Your task to perform on an android device: Open wifi settings Image 0: 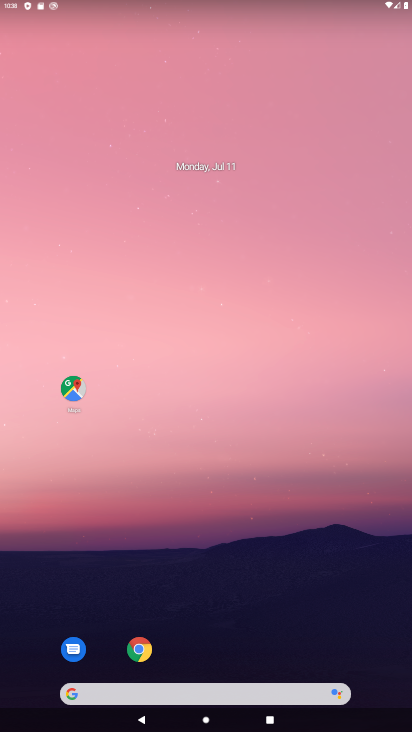
Step 0: drag from (310, 588) to (296, 87)
Your task to perform on an android device: Open wifi settings Image 1: 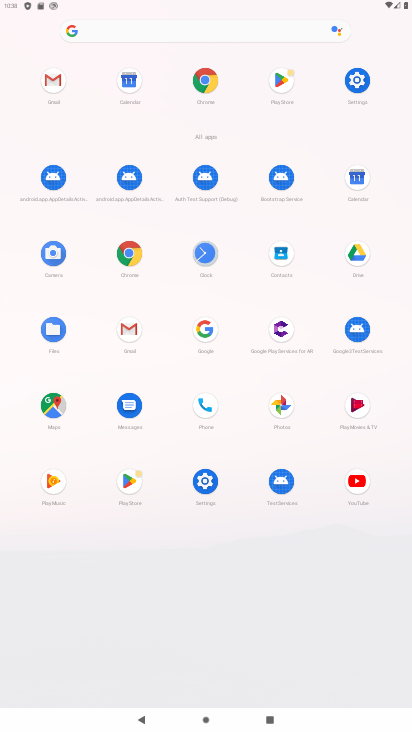
Step 1: click (359, 87)
Your task to perform on an android device: Open wifi settings Image 2: 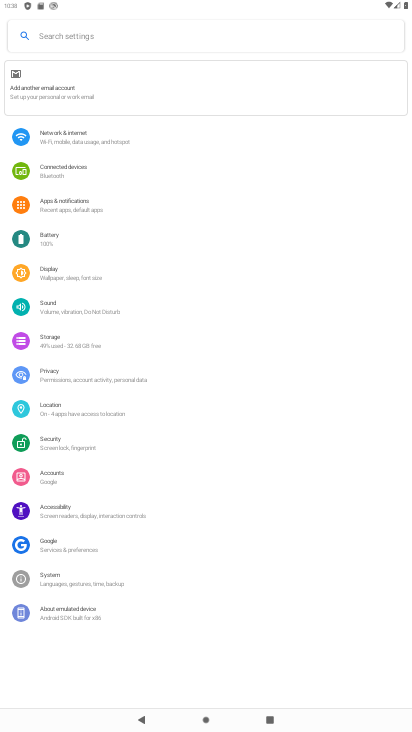
Step 2: click (73, 133)
Your task to perform on an android device: Open wifi settings Image 3: 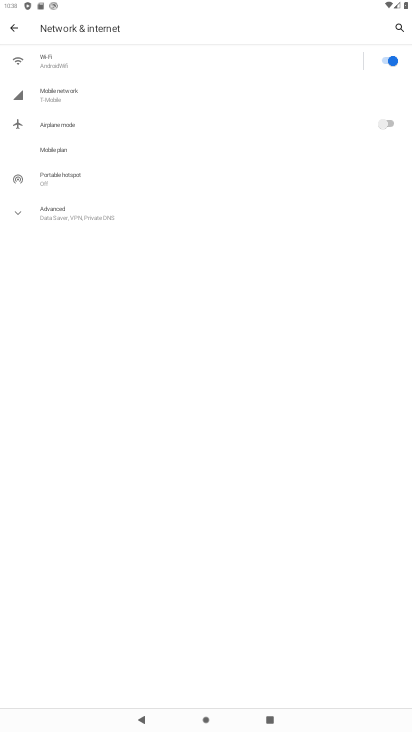
Step 3: click (258, 53)
Your task to perform on an android device: Open wifi settings Image 4: 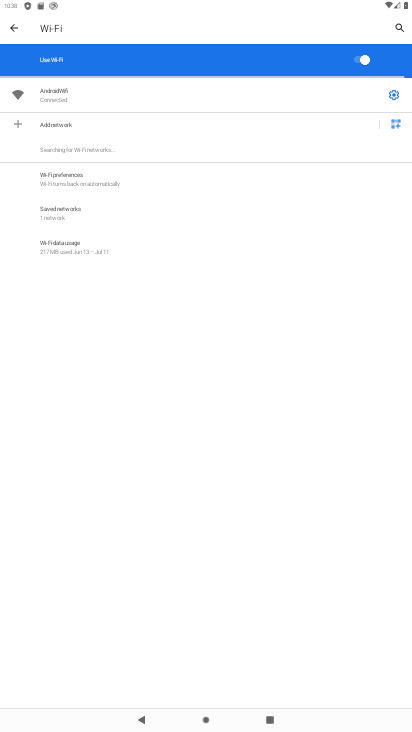
Step 4: click (390, 91)
Your task to perform on an android device: Open wifi settings Image 5: 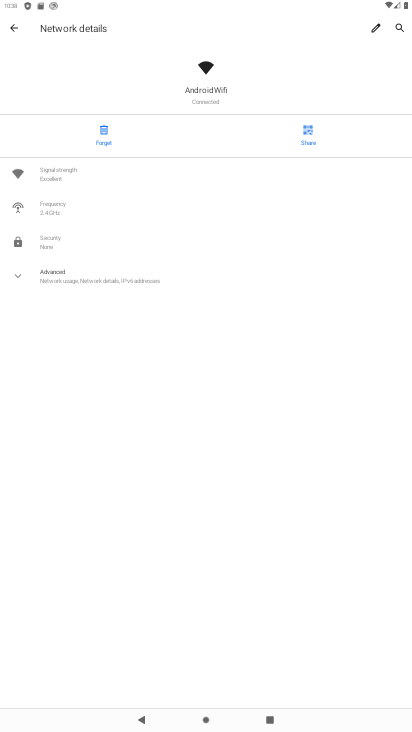
Step 5: task complete